Your task to perform on an android device: refresh tabs in the chrome app Image 0: 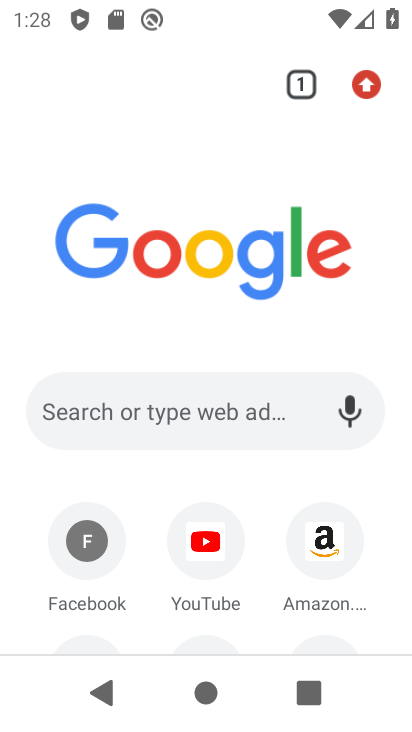
Step 0: click (361, 82)
Your task to perform on an android device: refresh tabs in the chrome app Image 1: 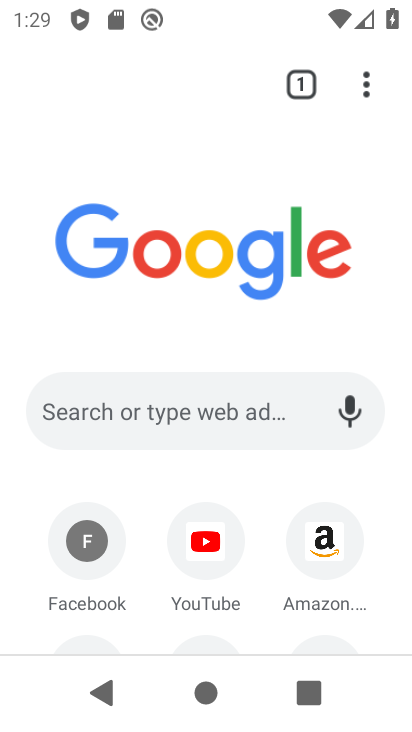
Step 1: drag from (8, 514) to (20, 363)
Your task to perform on an android device: refresh tabs in the chrome app Image 2: 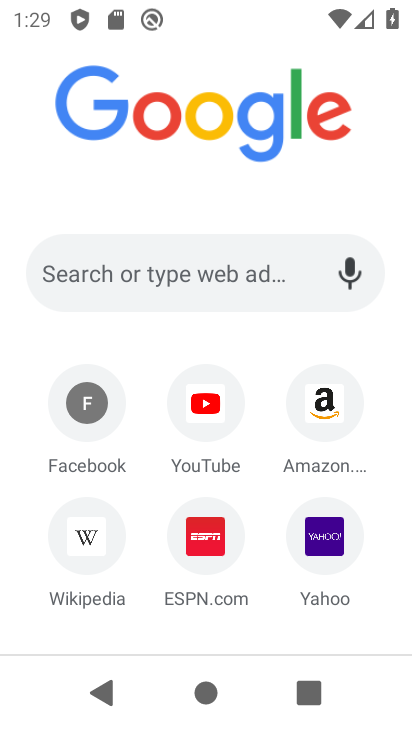
Step 2: drag from (41, 193) to (15, 436)
Your task to perform on an android device: refresh tabs in the chrome app Image 3: 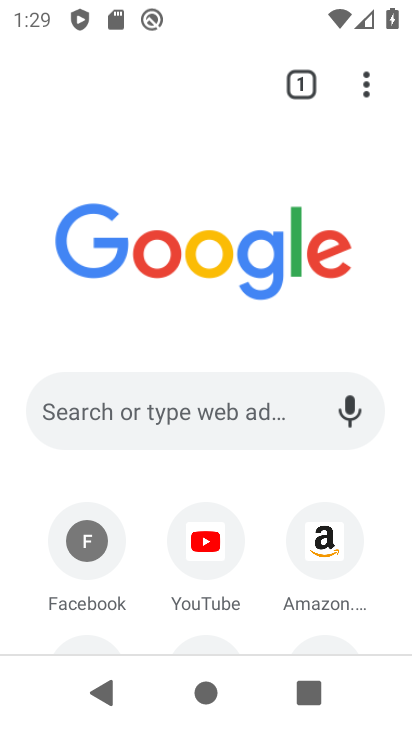
Step 3: click (370, 81)
Your task to perform on an android device: refresh tabs in the chrome app Image 4: 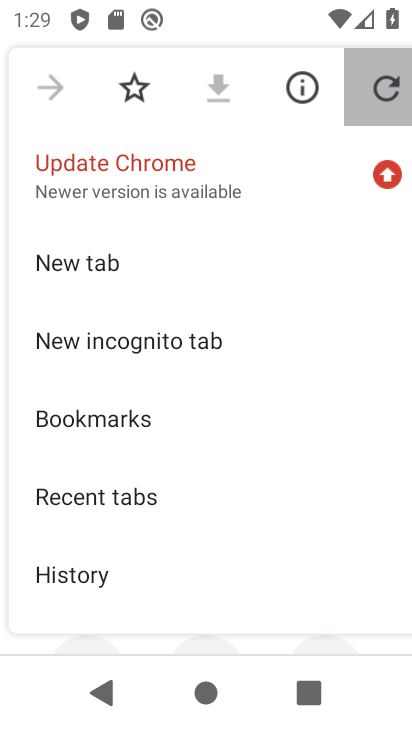
Step 4: click (374, 103)
Your task to perform on an android device: refresh tabs in the chrome app Image 5: 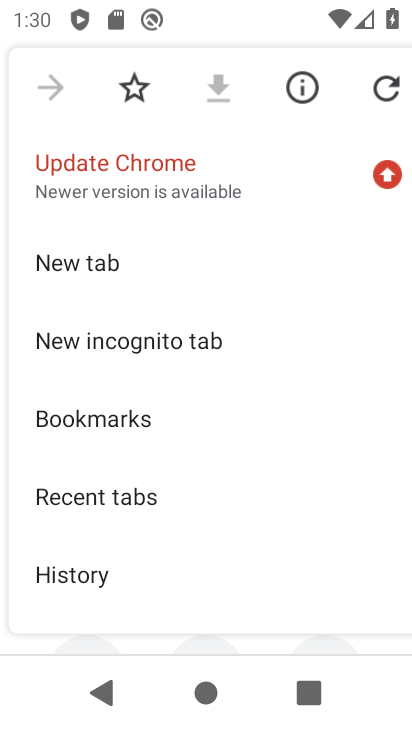
Step 5: drag from (227, 468) to (242, 344)
Your task to perform on an android device: refresh tabs in the chrome app Image 6: 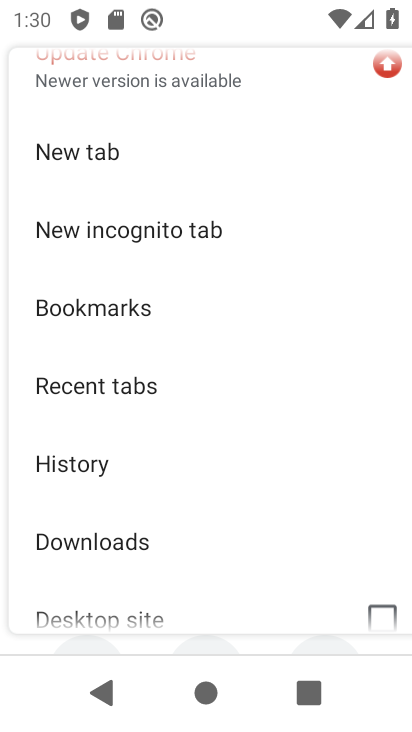
Step 6: drag from (257, 177) to (252, 360)
Your task to perform on an android device: refresh tabs in the chrome app Image 7: 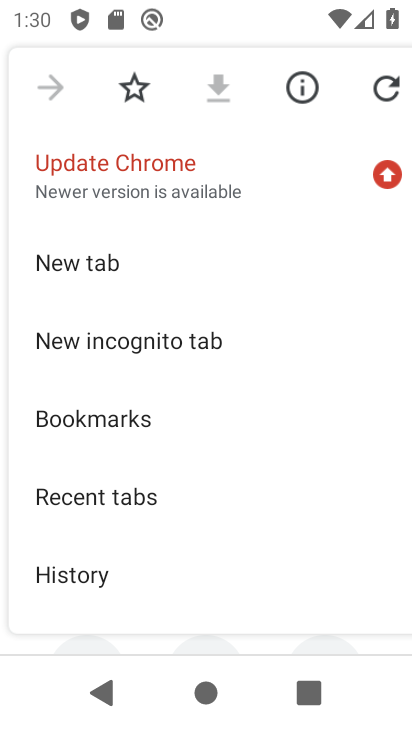
Step 7: click (216, 34)
Your task to perform on an android device: refresh tabs in the chrome app Image 8: 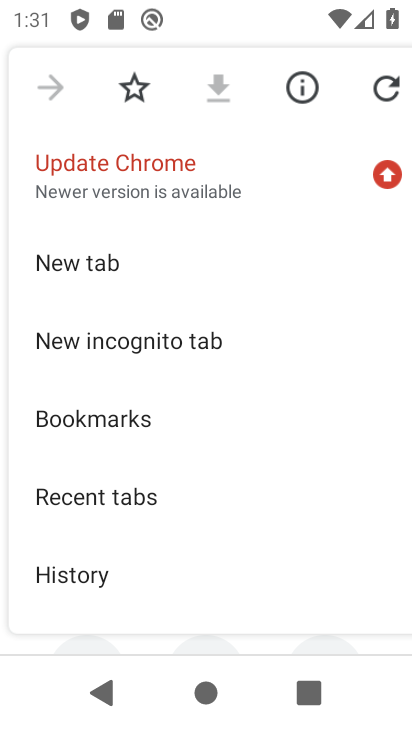
Step 8: task complete